Your task to perform on an android device: Go to privacy settings Image 0: 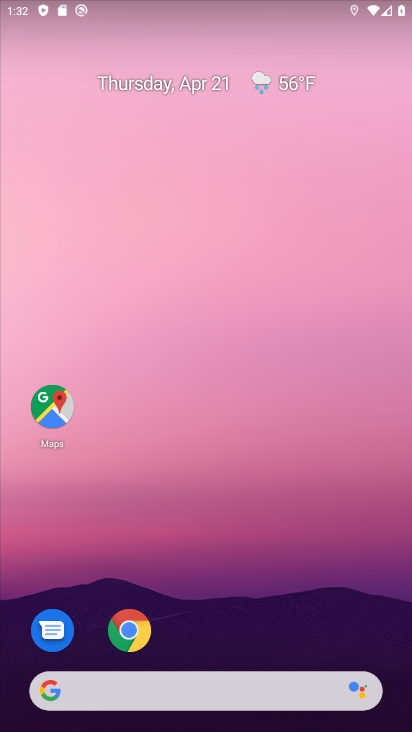
Step 0: drag from (309, 612) to (214, 31)
Your task to perform on an android device: Go to privacy settings Image 1: 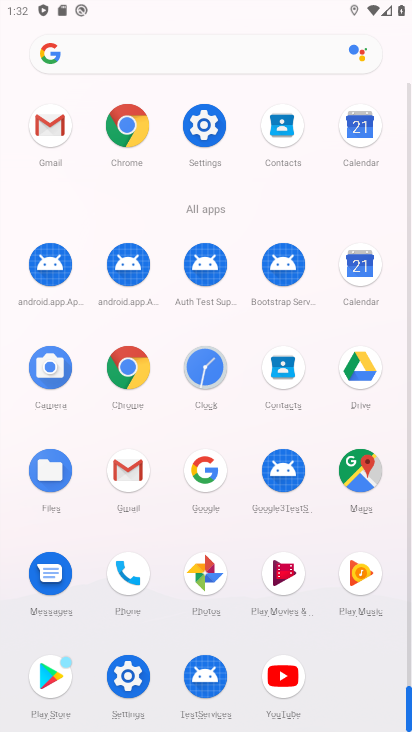
Step 1: click (202, 129)
Your task to perform on an android device: Go to privacy settings Image 2: 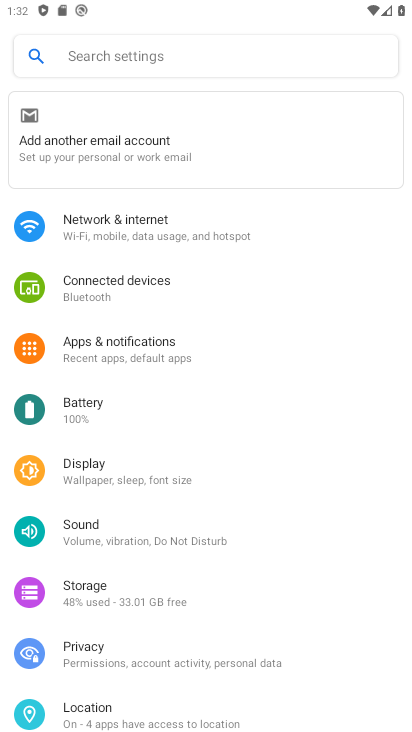
Step 2: click (116, 648)
Your task to perform on an android device: Go to privacy settings Image 3: 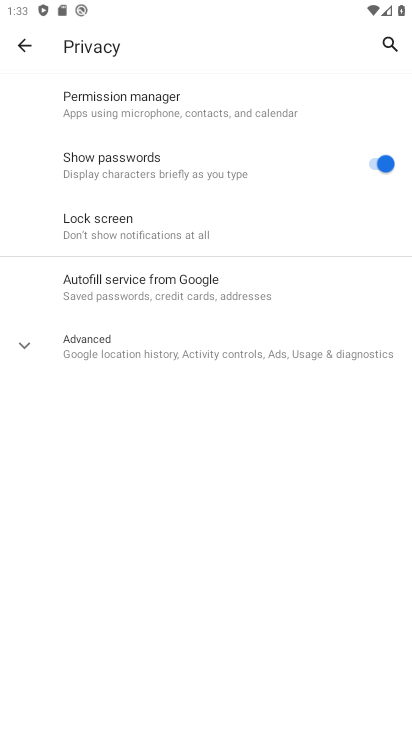
Step 3: task complete